Your task to perform on an android device: find which apps use the phone's location Image 0: 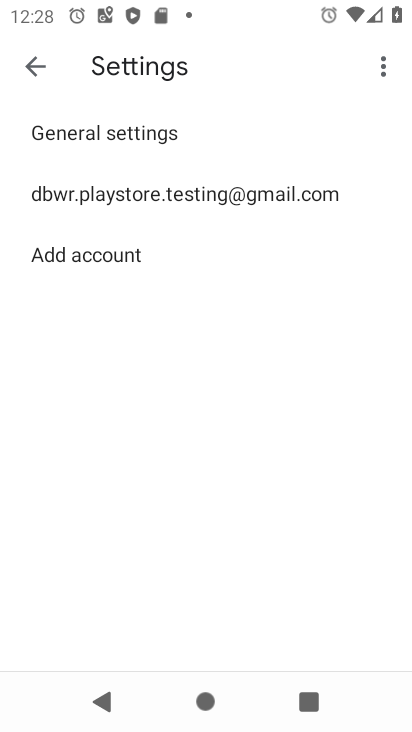
Step 0: press home button
Your task to perform on an android device: find which apps use the phone's location Image 1: 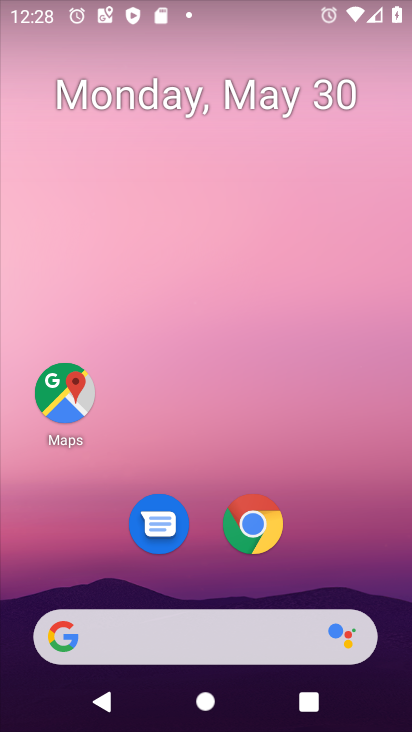
Step 1: drag from (254, 458) to (264, 6)
Your task to perform on an android device: find which apps use the phone's location Image 2: 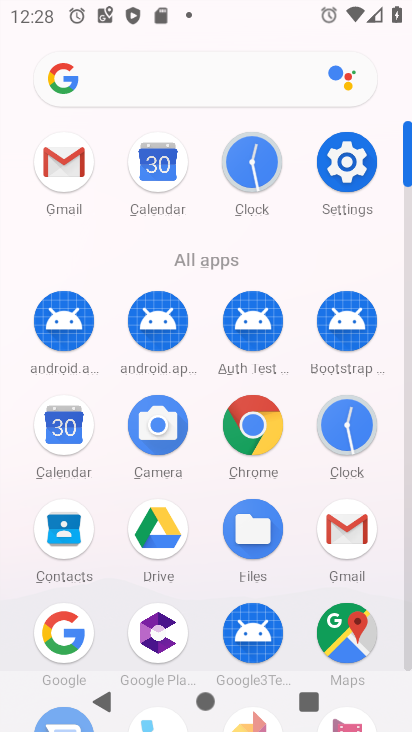
Step 2: click (347, 169)
Your task to perform on an android device: find which apps use the phone's location Image 3: 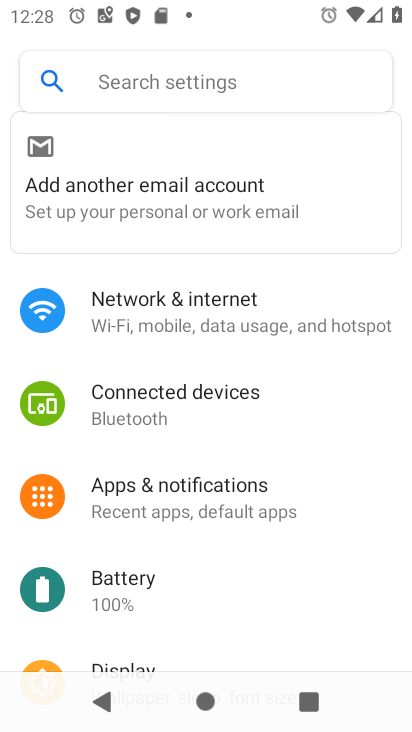
Step 3: drag from (242, 599) to (287, 20)
Your task to perform on an android device: find which apps use the phone's location Image 4: 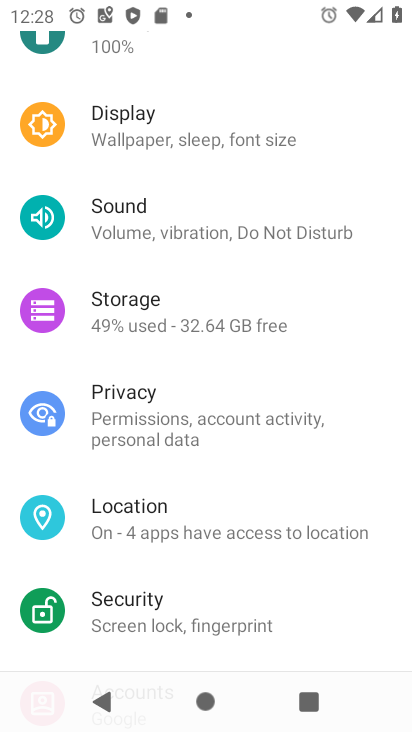
Step 4: click (187, 531)
Your task to perform on an android device: find which apps use the phone's location Image 5: 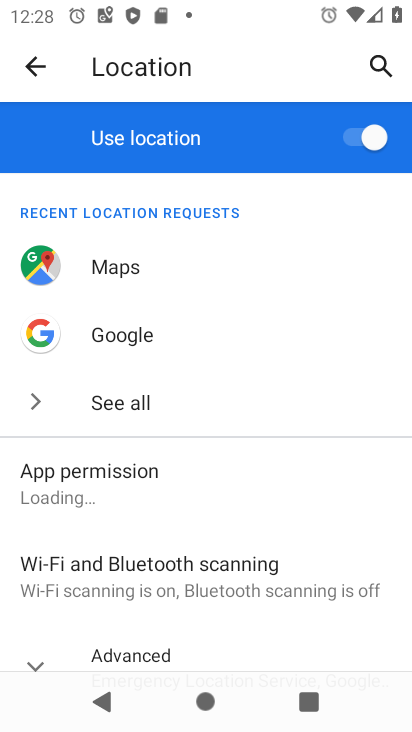
Step 5: click (209, 478)
Your task to perform on an android device: find which apps use the phone's location Image 6: 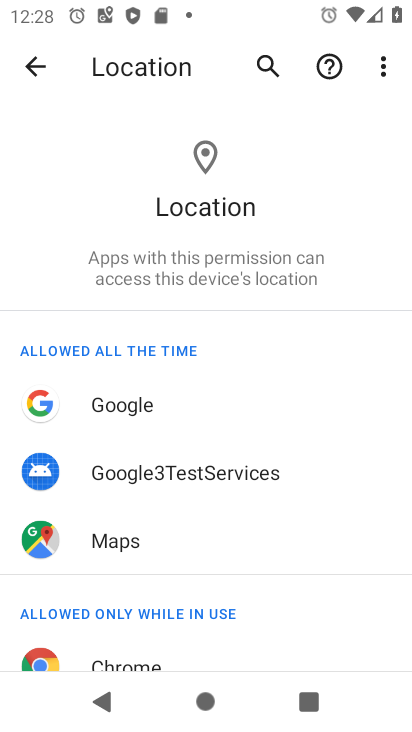
Step 6: task complete